Your task to perform on an android device: turn off picture-in-picture Image 0: 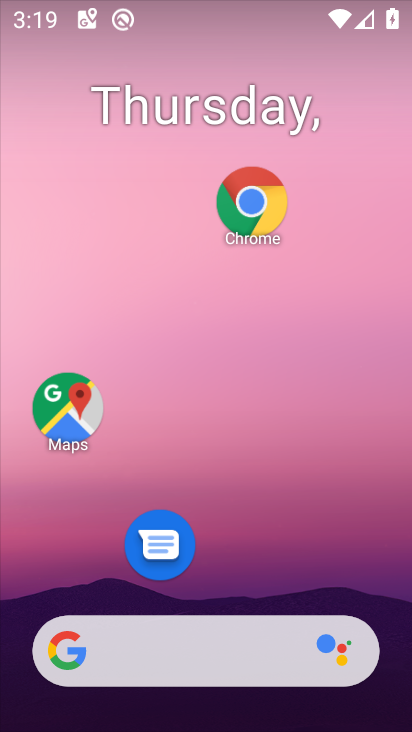
Step 0: click (248, 198)
Your task to perform on an android device: turn off picture-in-picture Image 1: 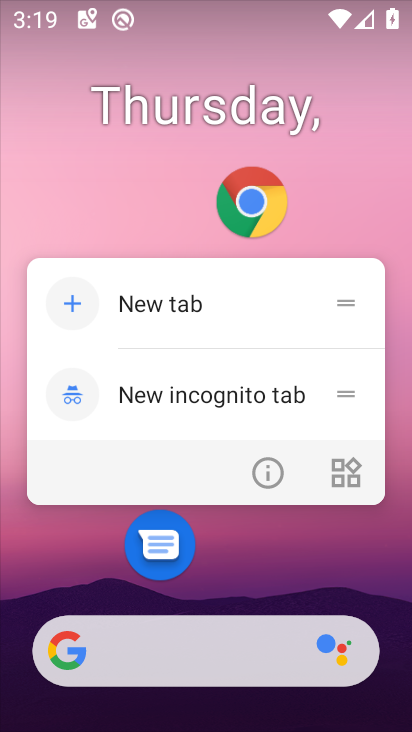
Step 1: click (271, 483)
Your task to perform on an android device: turn off picture-in-picture Image 2: 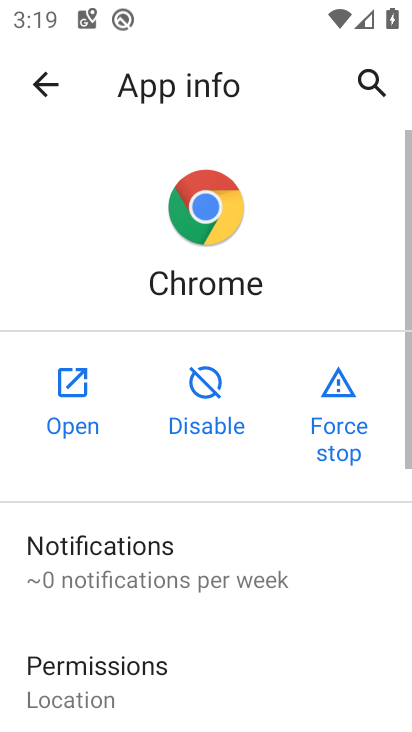
Step 2: drag from (142, 692) to (136, 175)
Your task to perform on an android device: turn off picture-in-picture Image 3: 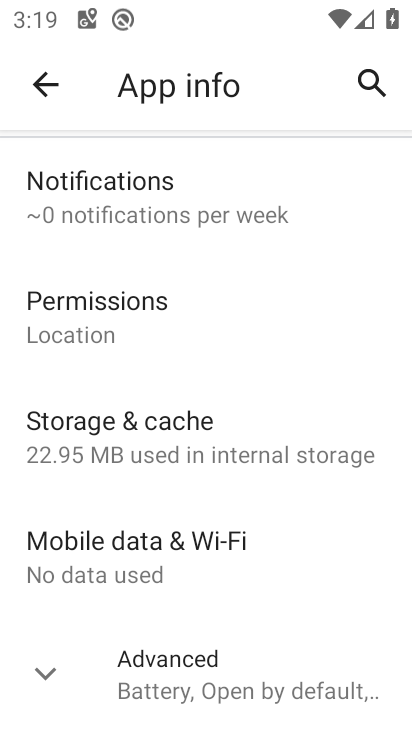
Step 3: click (151, 694)
Your task to perform on an android device: turn off picture-in-picture Image 4: 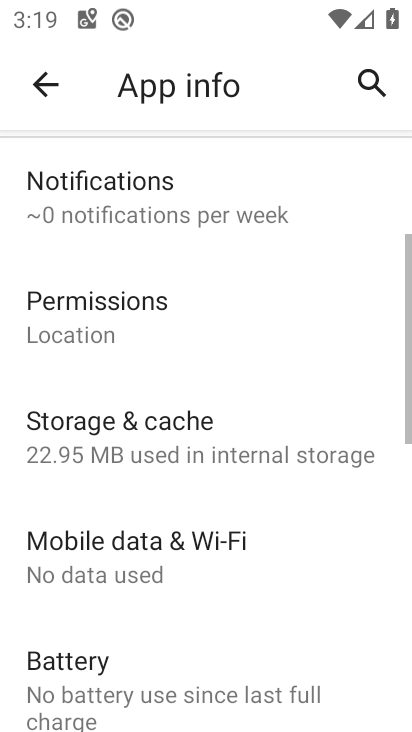
Step 4: drag from (154, 686) to (223, 332)
Your task to perform on an android device: turn off picture-in-picture Image 5: 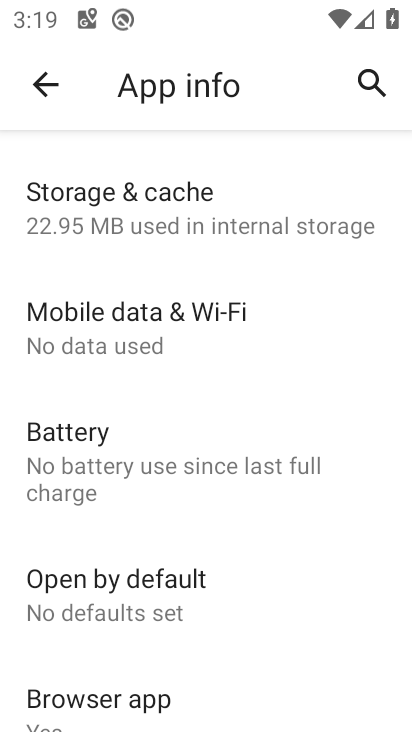
Step 5: drag from (123, 720) to (168, 269)
Your task to perform on an android device: turn off picture-in-picture Image 6: 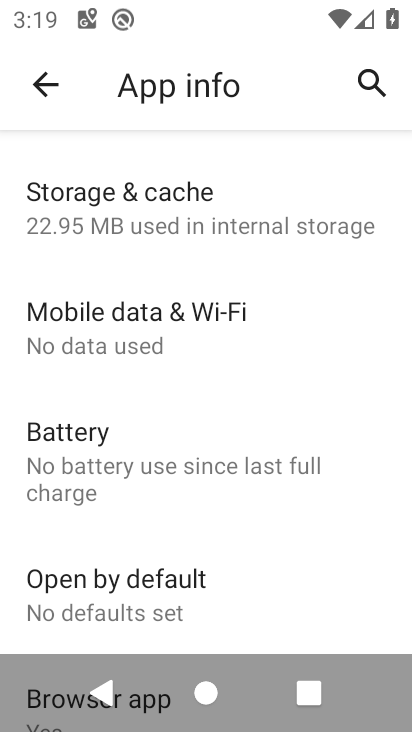
Step 6: drag from (168, 603) to (227, 160)
Your task to perform on an android device: turn off picture-in-picture Image 7: 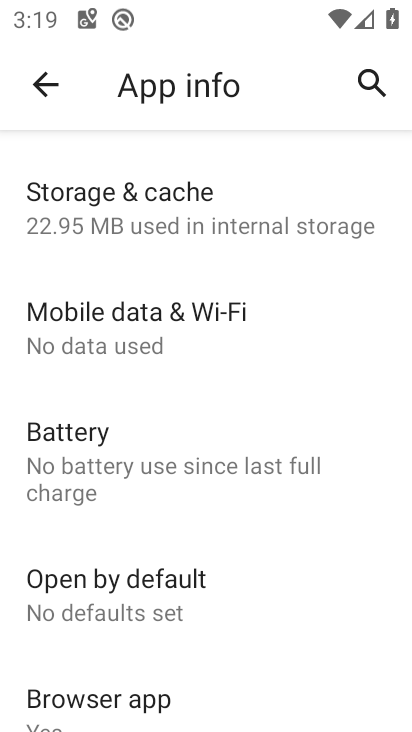
Step 7: drag from (121, 717) to (152, 303)
Your task to perform on an android device: turn off picture-in-picture Image 8: 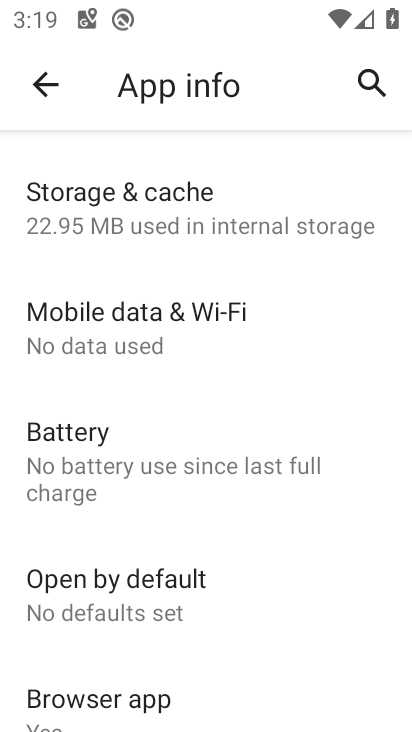
Step 8: drag from (176, 705) to (247, 231)
Your task to perform on an android device: turn off picture-in-picture Image 9: 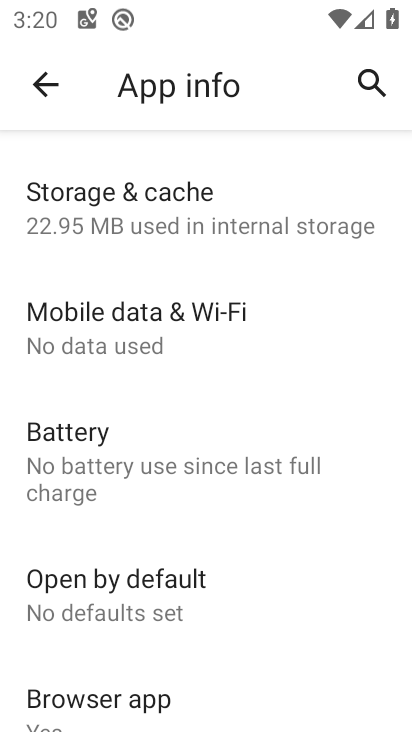
Step 9: drag from (183, 634) to (240, 281)
Your task to perform on an android device: turn off picture-in-picture Image 10: 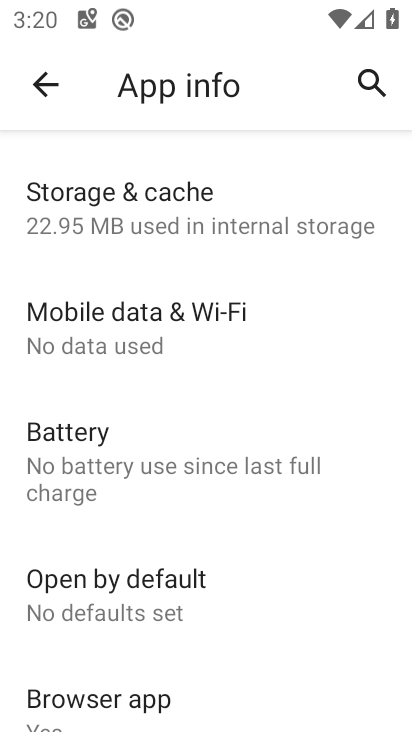
Step 10: drag from (94, 729) to (150, 363)
Your task to perform on an android device: turn off picture-in-picture Image 11: 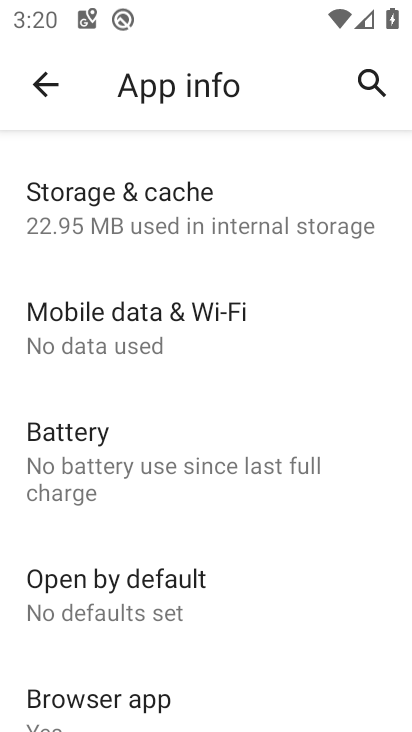
Step 11: drag from (120, 708) to (166, 390)
Your task to perform on an android device: turn off picture-in-picture Image 12: 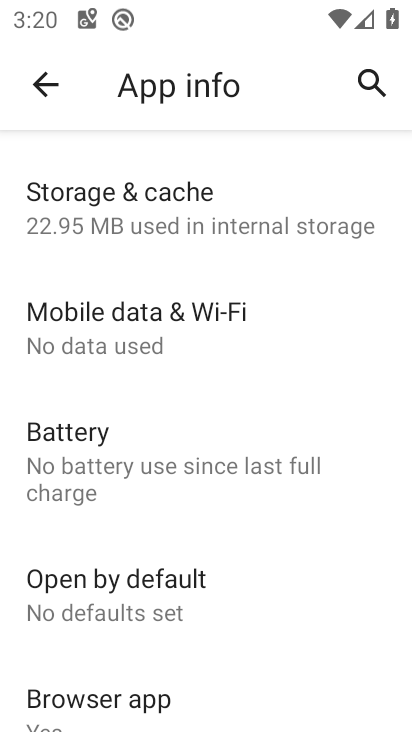
Step 12: drag from (107, 713) to (164, 295)
Your task to perform on an android device: turn off picture-in-picture Image 13: 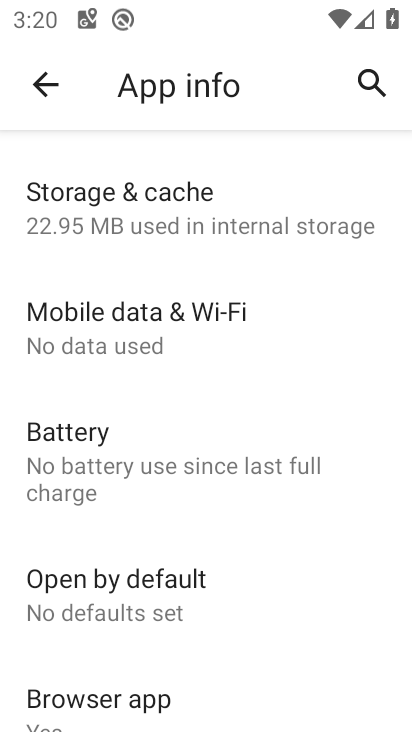
Step 13: drag from (116, 719) to (116, 372)
Your task to perform on an android device: turn off picture-in-picture Image 14: 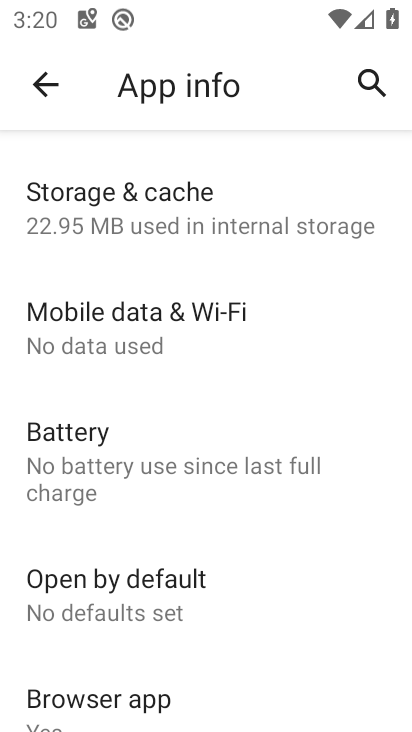
Step 14: drag from (162, 714) to (156, 208)
Your task to perform on an android device: turn off picture-in-picture Image 15: 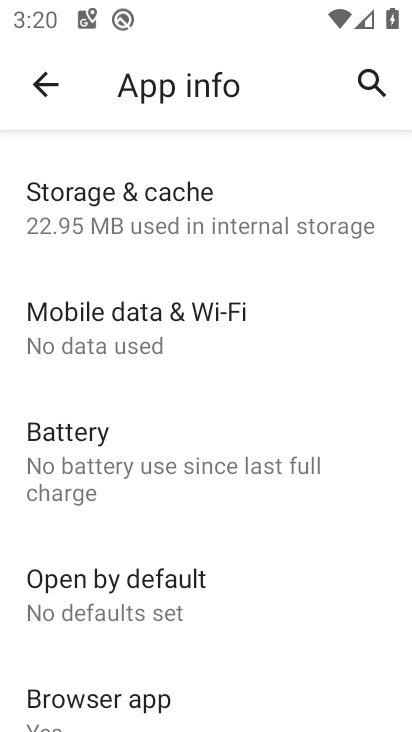
Step 15: drag from (248, 707) to (290, 274)
Your task to perform on an android device: turn off picture-in-picture Image 16: 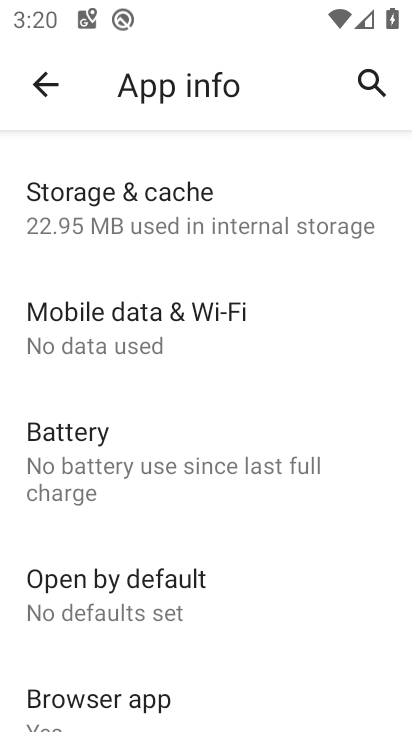
Step 16: drag from (147, 621) to (168, 45)
Your task to perform on an android device: turn off picture-in-picture Image 17: 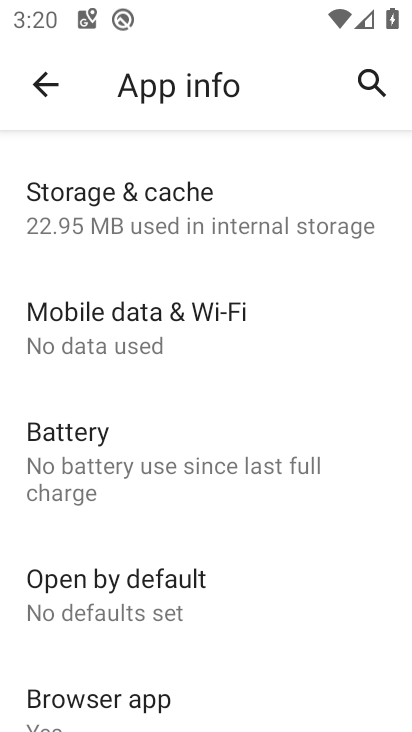
Step 17: drag from (217, 491) to (217, 89)
Your task to perform on an android device: turn off picture-in-picture Image 18: 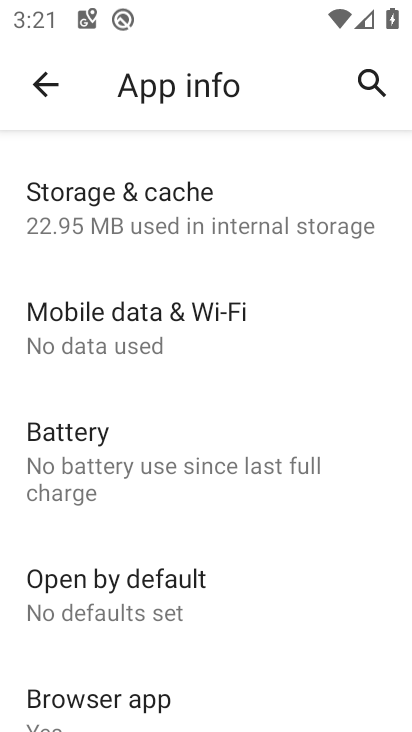
Step 18: drag from (203, 685) to (213, 159)
Your task to perform on an android device: turn off picture-in-picture Image 19: 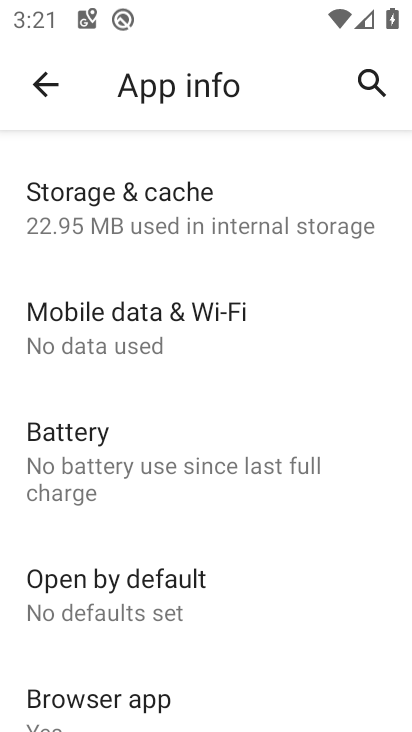
Step 19: drag from (202, 253) to (213, 626)
Your task to perform on an android device: turn off picture-in-picture Image 20: 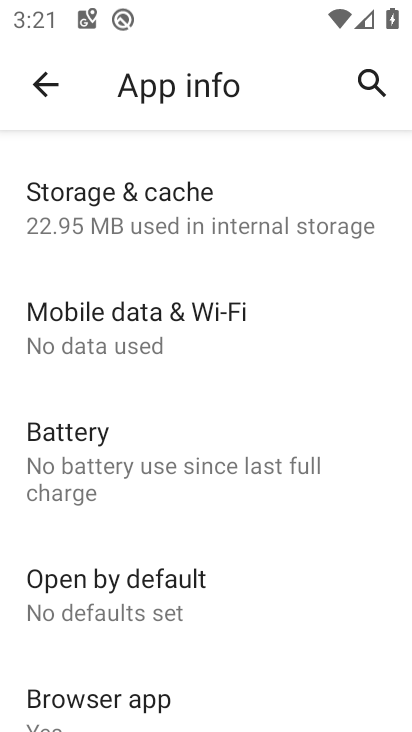
Step 20: drag from (236, 161) to (227, 624)
Your task to perform on an android device: turn off picture-in-picture Image 21: 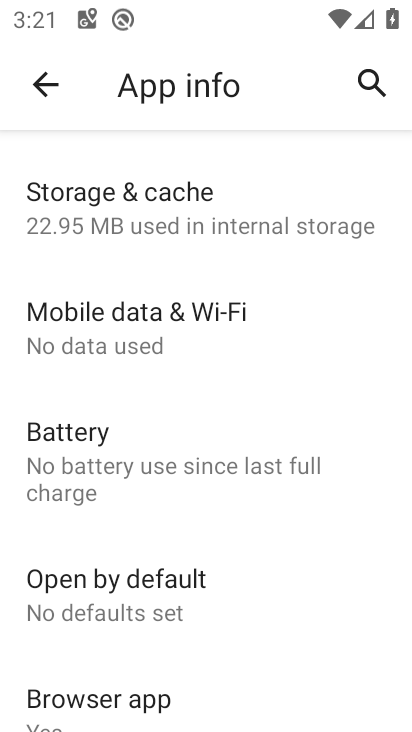
Step 21: drag from (256, 648) to (260, 299)
Your task to perform on an android device: turn off picture-in-picture Image 22: 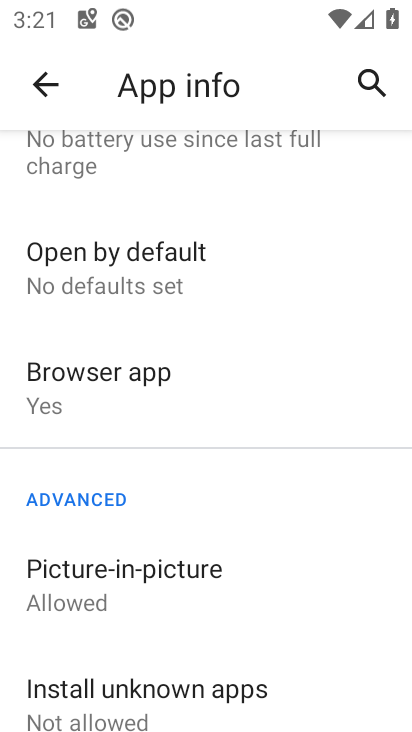
Step 22: click (211, 593)
Your task to perform on an android device: turn off picture-in-picture Image 23: 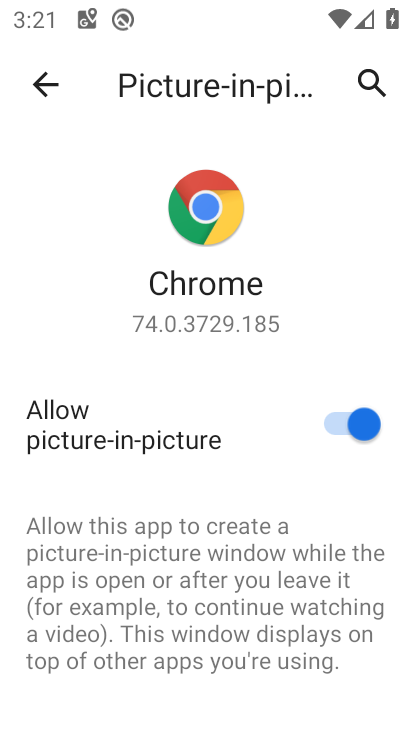
Step 23: click (314, 433)
Your task to perform on an android device: turn off picture-in-picture Image 24: 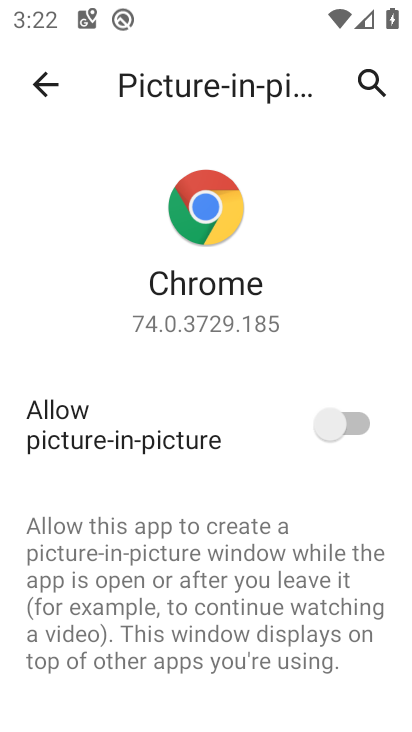
Step 24: task complete